Your task to perform on an android device: Turn off the flashlight Image 0: 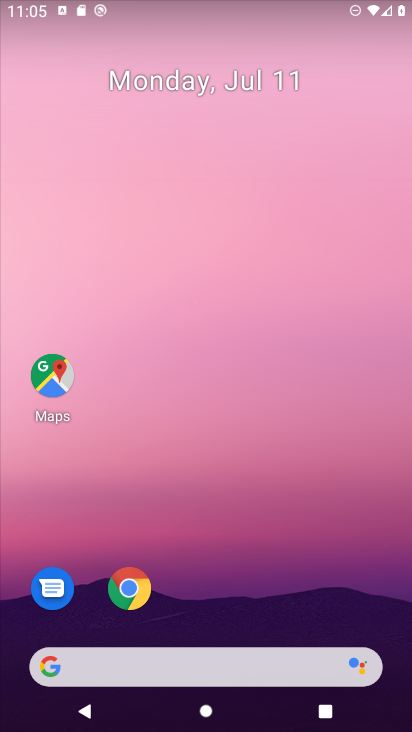
Step 0: drag from (386, 637) to (312, 279)
Your task to perform on an android device: Turn off the flashlight Image 1: 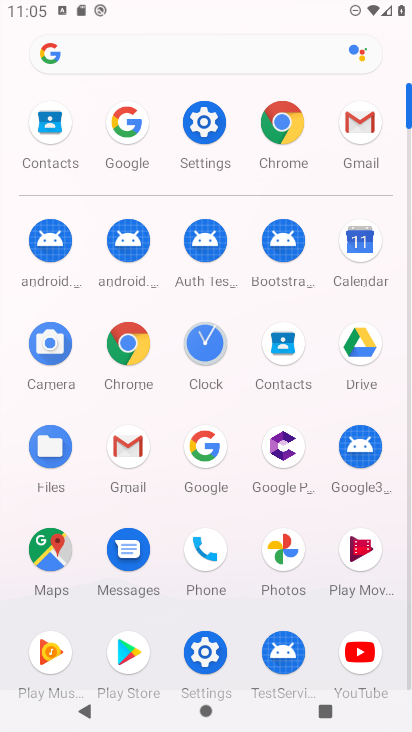
Step 1: click (211, 99)
Your task to perform on an android device: Turn off the flashlight Image 2: 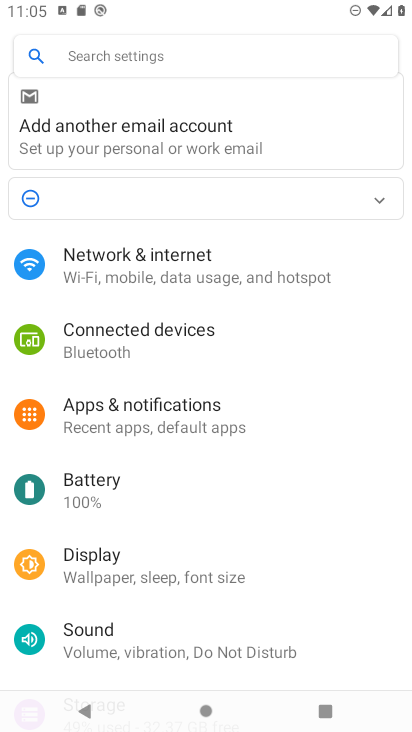
Step 2: task complete